Your task to perform on an android device: Open maps Image 0: 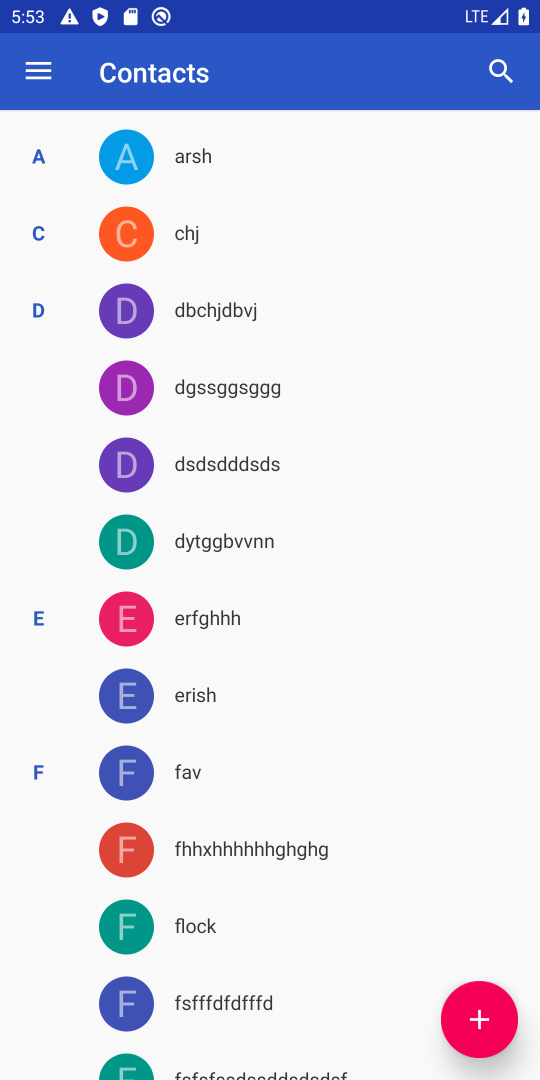
Step 0: press home button
Your task to perform on an android device: Open maps Image 1: 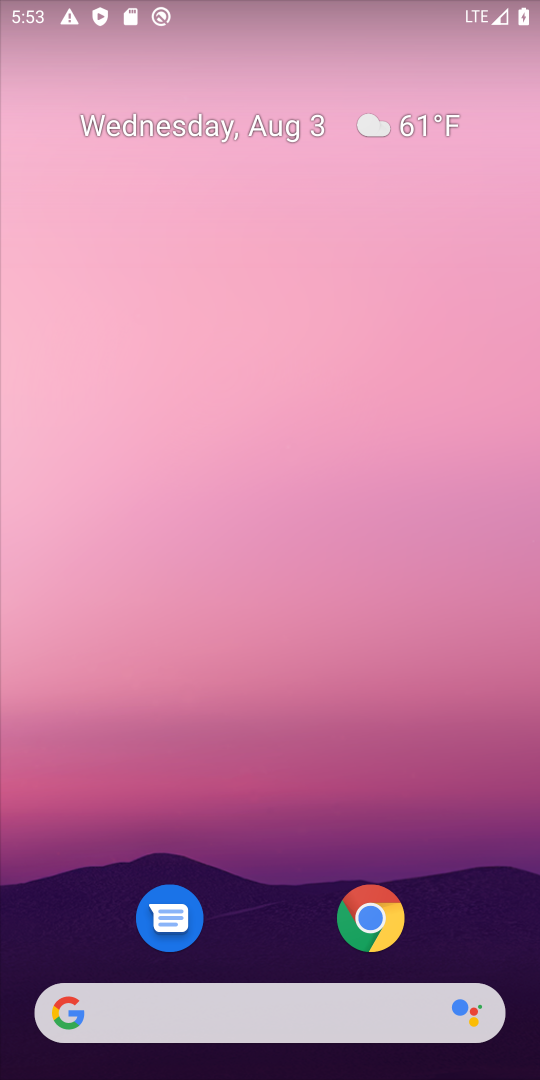
Step 1: drag from (274, 1017) to (302, 170)
Your task to perform on an android device: Open maps Image 2: 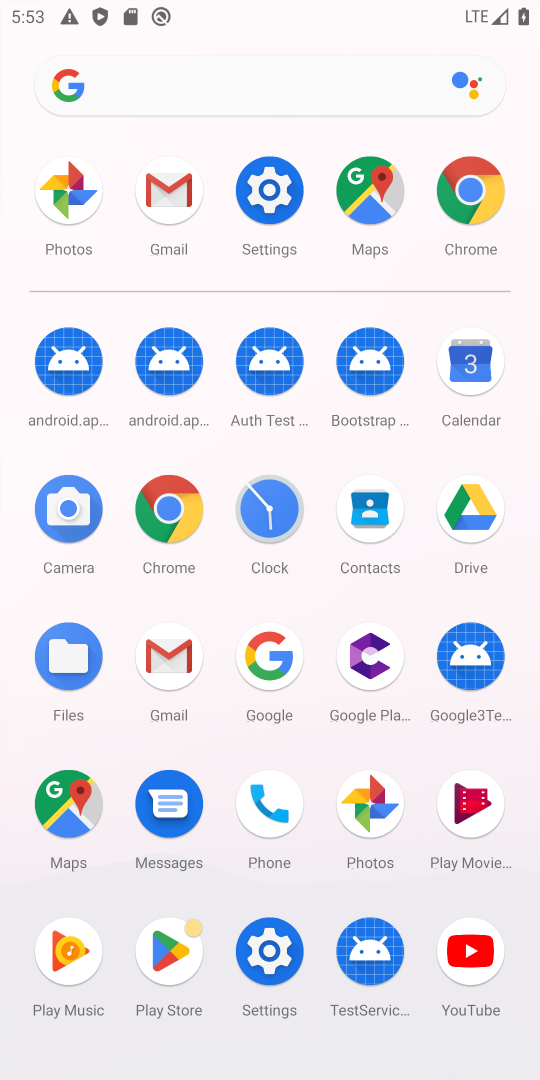
Step 2: click (71, 797)
Your task to perform on an android device: Open maps Image 3: 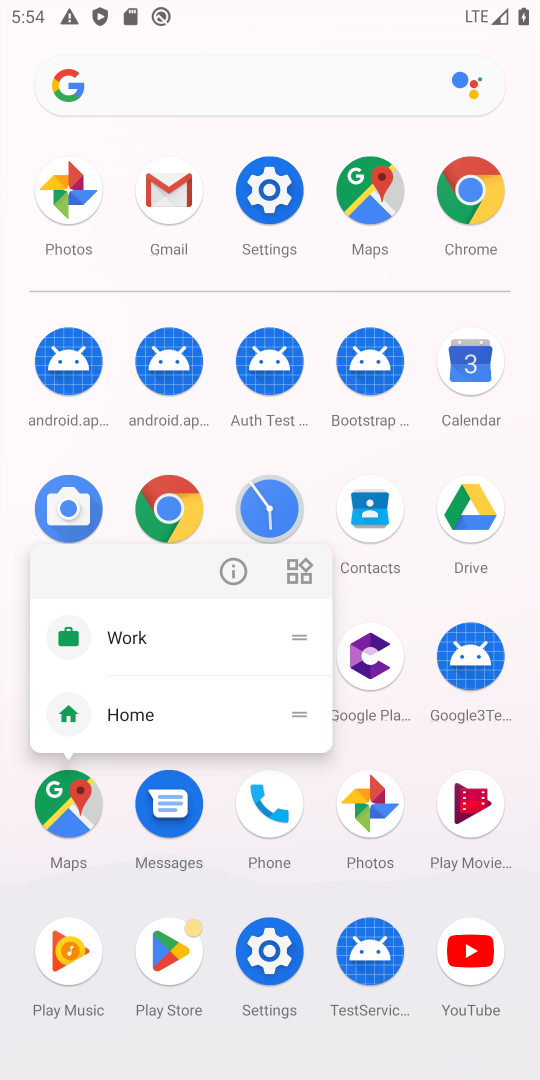
Step 3: click (83, 827)
Your task to perform on an android device: Open maps Image 4: 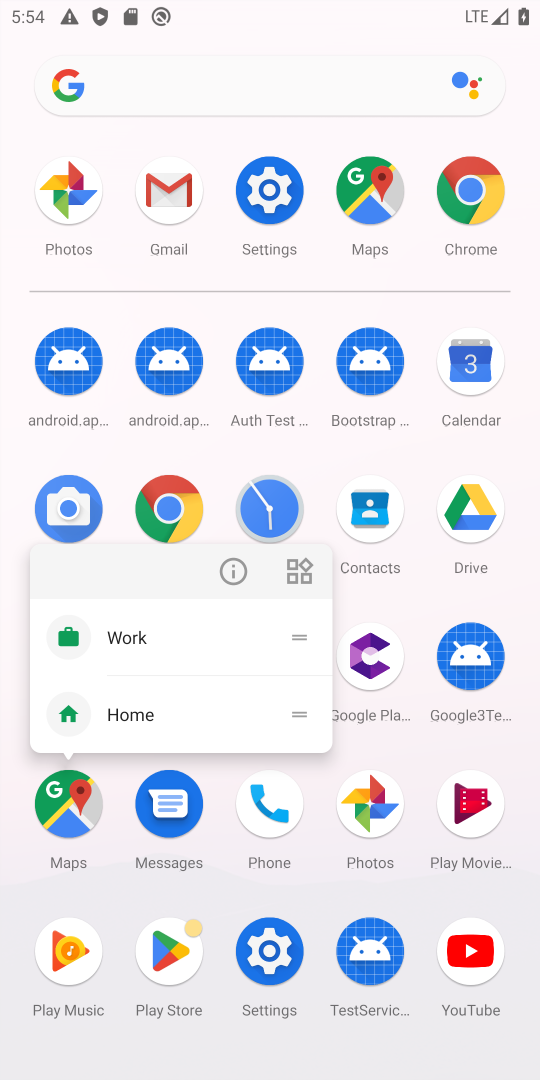
Step 4: click (65, 795)
Your task to perform on an android device: Open maps Image 5: 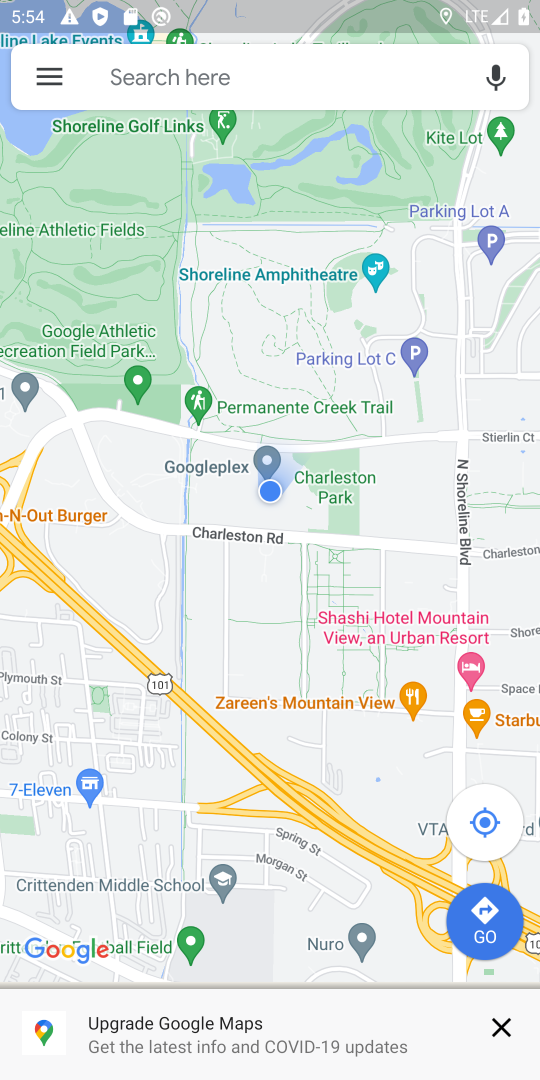
Step 5: task complete